Your task to perform on an android device: toggle wifi Image 0: 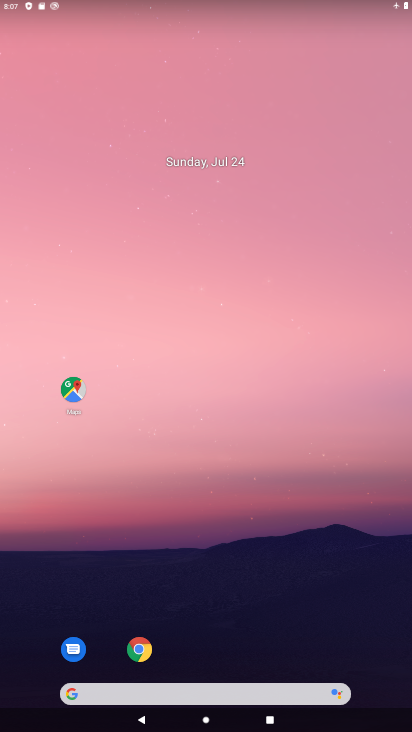
Step 0: drag from (194, 671) to (150, 111)
Your task to perform on an android device: toggle wifi Image 1: 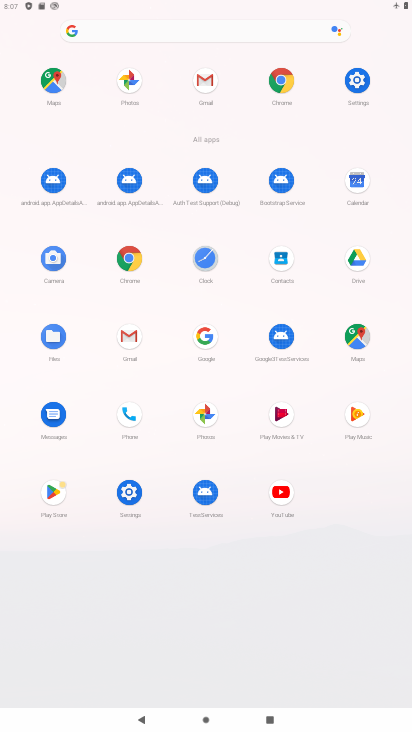
Step 1: click (350, 79)
Your task to perform on an android device: toggle wifi Image 2: 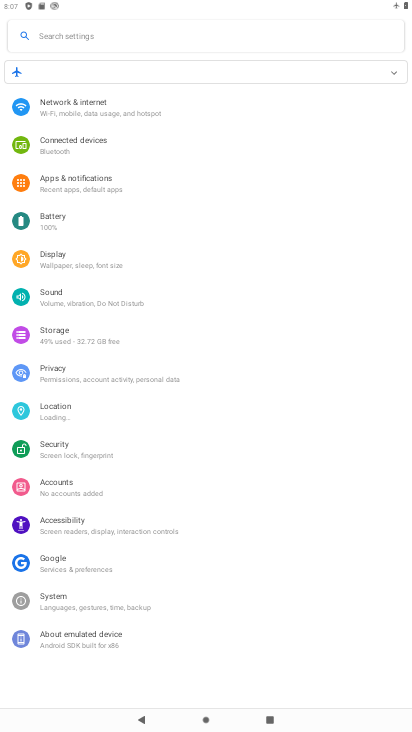
Step 2: click (76, 98)
Your task to perform on an android device: toggle wifi Image 3: 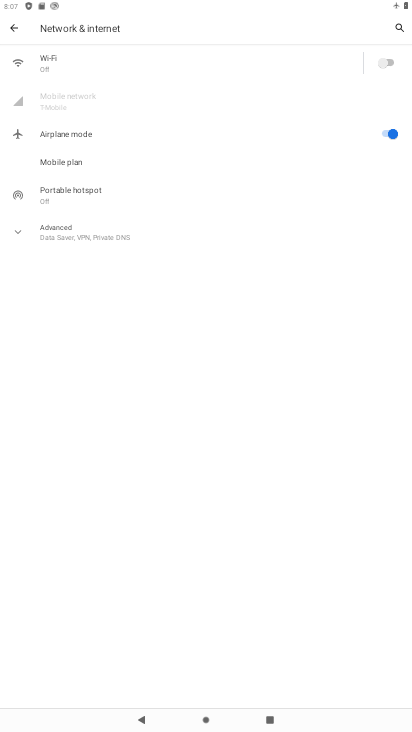
Step 3: click (386, 59)
Your task to perform on an android device: toggle wifi Image 4: 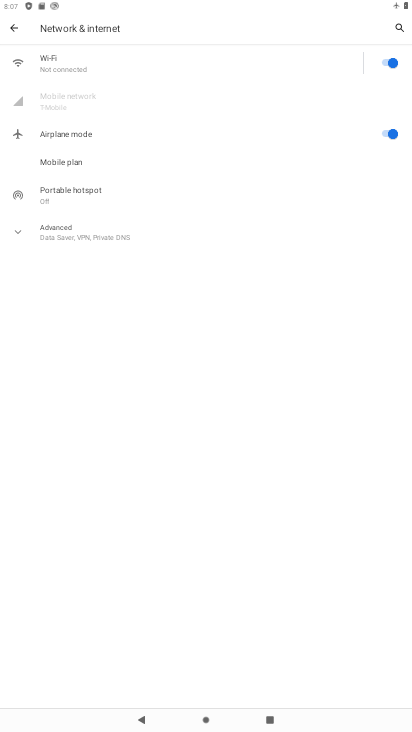
Step 4: task complete